Your task to perform on an android device: Is it going to rain today? Image 0: 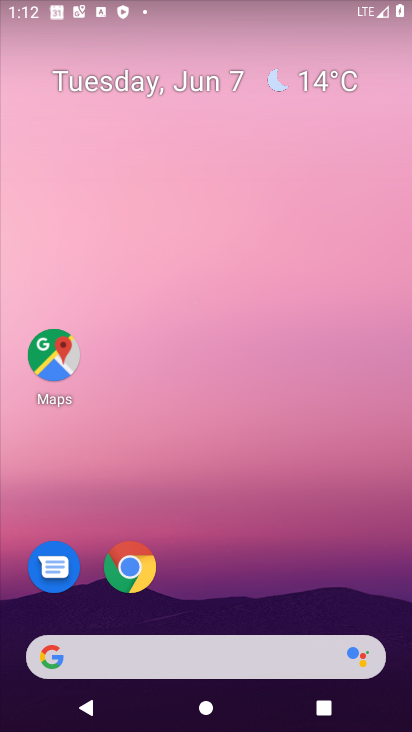
Step 0: drag from (29, 247) to (357, 261)
Your task to perform on an android device: Is it going to rain today? Image 1: 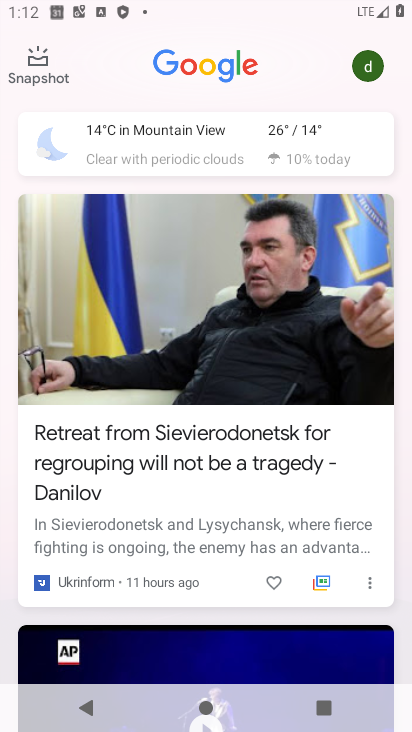
Step 1: click (195, 152)
Your task to perform on an android device: Is it going to rain today? Image 2: 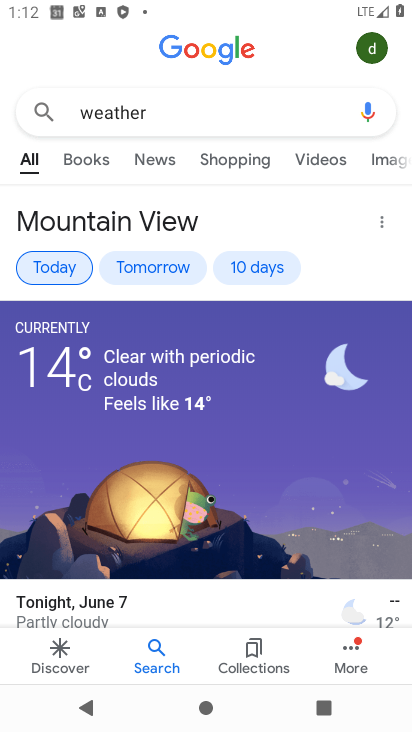
Step 2: task complete